Your task to perform on an android device: Search for Mexican restaurants on Maps Image 0: 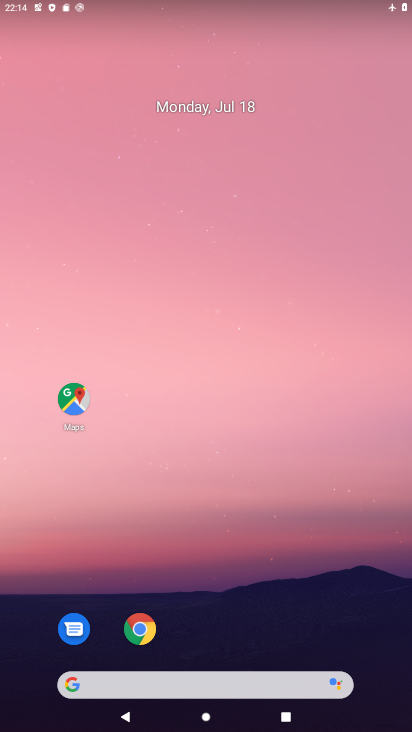
Step 0: drag from (316, 585) to (247, 156)
Your task to perform on an android device: Search for Mexican restaurants on Maps Image 1: 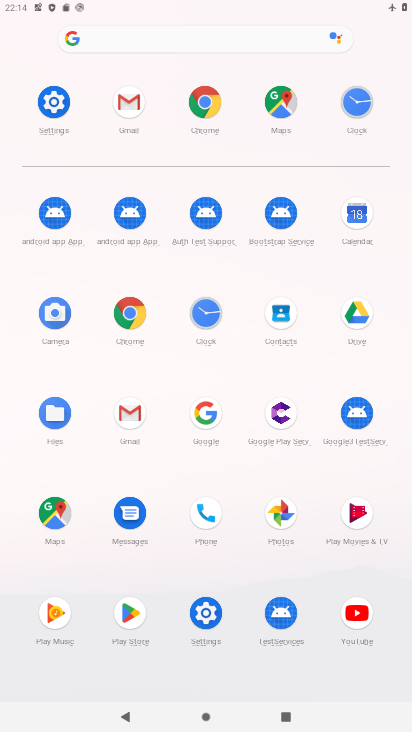
Step 1: click (274, 105)
Your task to perform on an android device: Search for Mexican restaurants on Maps Image 2: 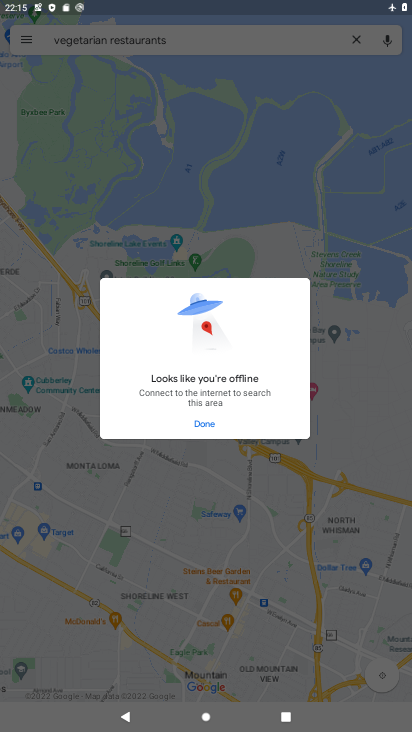
Step 2: task complete